Your task to perform on an android device: Add lenovo thinkpad to the cart on newegg.com, then select checkout. Image 0: 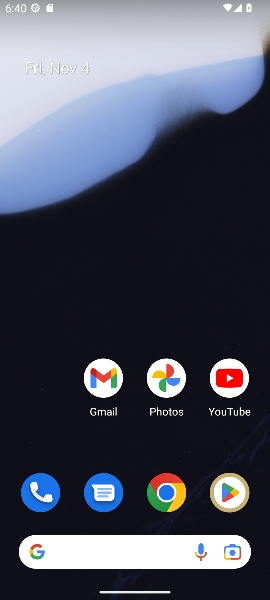
Step 0: drag from (140, 459) to (108, 57)
Your task to perform on an android device: Add lenovo thinkpad to the cart on newegg.com, then select checkout. Image 1: 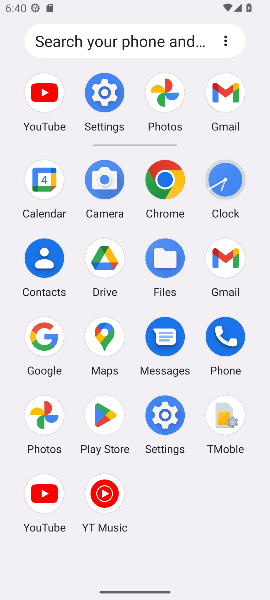
Step 1: click (168, 176)
Your task to perform on an android device: Add lenovo thinkpad to the cart on newegg.com, then select checkout. Image 2: 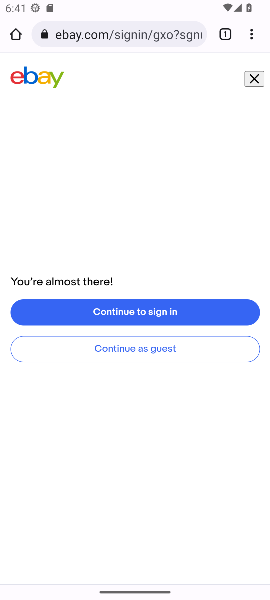
Step 2: press home button
Your task to perform on an android device: Add lenovo thinkpad to the cart on newegg.com, then select checkout. Image 3: 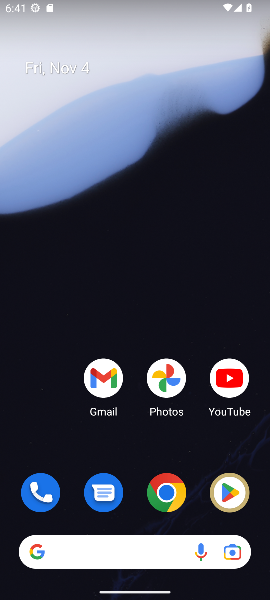
Step 3: drag from (143, 395) to (136, 5)
Your task to perform on an android device: Add lenovo thinkpad to the cart on newegg.com, then select checkout. Image 4: 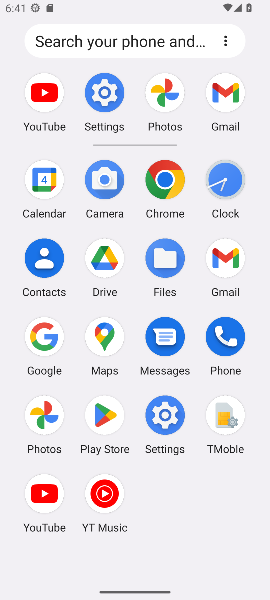
Step 4: click (167, 179)
Your task to perform on an android device: Add lenovo thinkpad to the cart on newegg.com, then select checkout. Image 5: 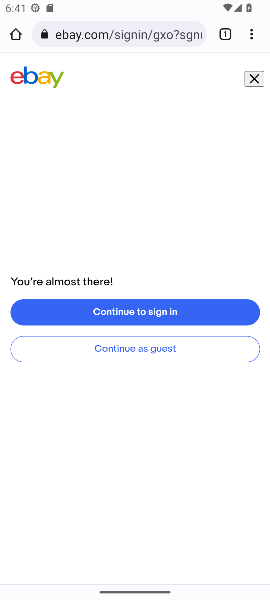
Step 5: click (126, 35)
Your task to perform on an android device: Add lenovo thinkpad to the cart on newegg.com, then select checkout. Image 6: 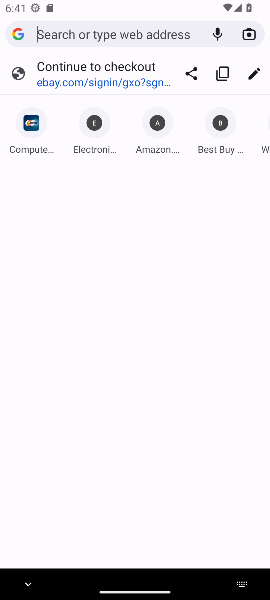
Step 6: type "newegg.com"
Your task to perform on an android device: Add lenovo thinkpad to the cart on newegg.com, then select checkout. Image 7: 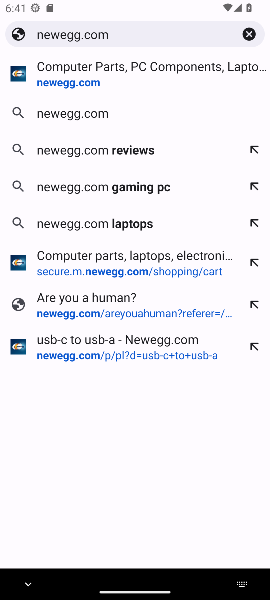
Step 7: press enter
Your task to perform on an android device: Add lenovo thinkpad to the cart on newegg.com, then select checkout. Image 8: 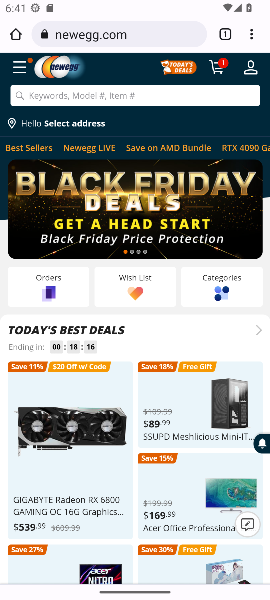
Step 8: click (165, 96)
Your task to perform on an android device: Add lenovo thinkpad to the cart on newegg.com, then select checkout. Image 9: 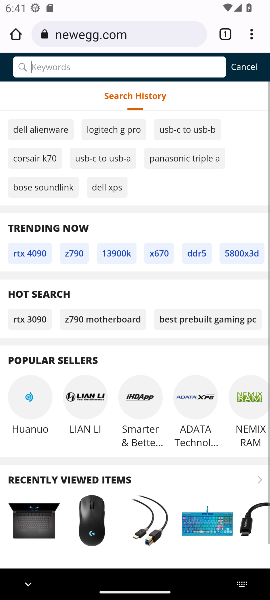
Step 9: type "lenovo thinkpad"
Your task to perform on an android device: Add lenovo thinkpad to the cart on newegg.com, then select checkout. Image 10: 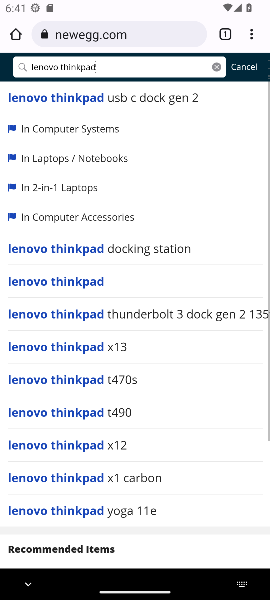
Step 10: press enter
Your task to perform on an android device: Add lenovo thinkpad to the cart on newegg.com, then select checkout. Image 11: 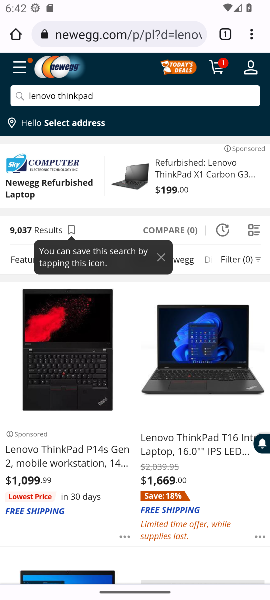
Step 11: drag from (215, 509) to (234, 320)
Your task to perform on an android device: Add lenovo thinkpad to the cart on newegg.com, then select checkout. Image 12: 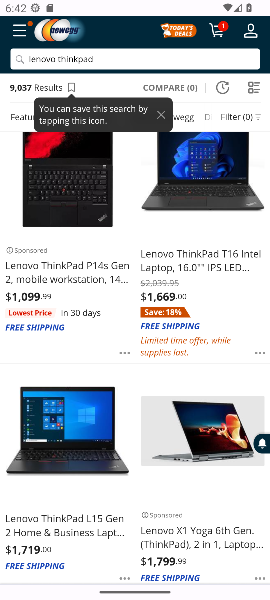
Step 12: click (194, 267)
Your task to perform on an android device: Add lenovo thinkpad to the cart on newegg.com, then select checkout. Image 13: 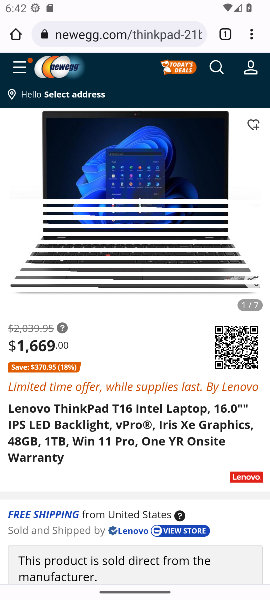
Step 13: drag from (145, 498) to (191, 293)
Your task to perform on an android device: Add lenovo thinkpad to the cart on newegg.com, then select checkout. Image 14: 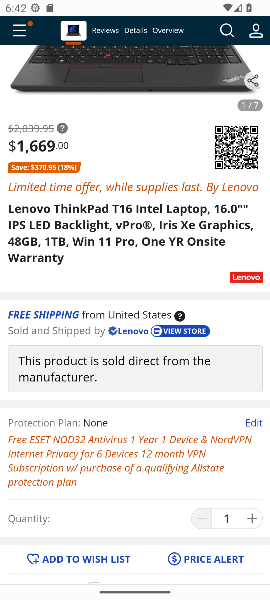
Step 14: click (136, 569)
Your task to perform on an android device: Add lenovo thinkpad to the cart on newegg.com, then select checkout. Image 15: 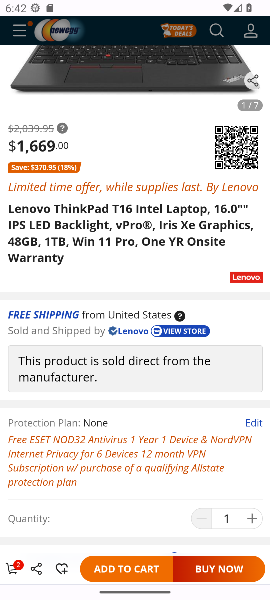
Step 15: click (18, 562)
Your task to perform on an android device: Add lenovo thinkpad to the cart on newegg.com, then select checkout. Image 16: 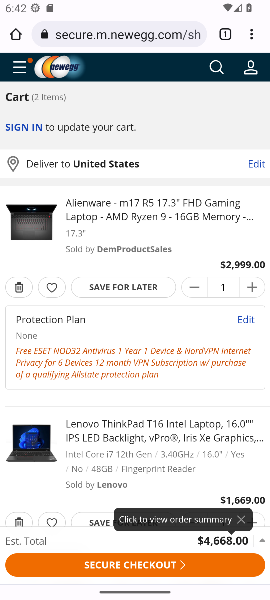
Step 16: click (143, 564)
Your task to perform on an android device: Add lenovo thinkpad to the cart on newegg.com, then select checkout. Image 17: 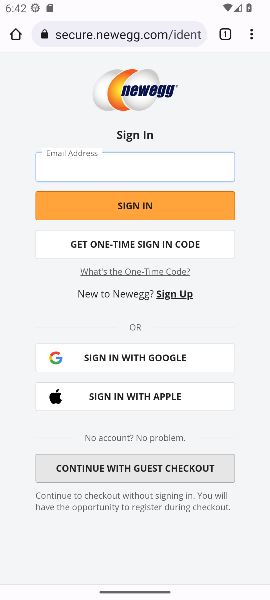
Step 17: task complete